Your task to perform on an android device: Go to sound settings Image 0: 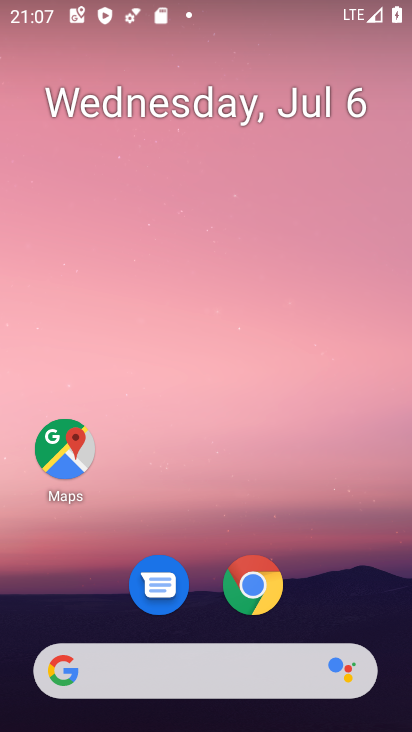
Step 0: drag from (220, 490) to (224, 14)
Your task to perform on an android device: Go to sound settings Image 1: 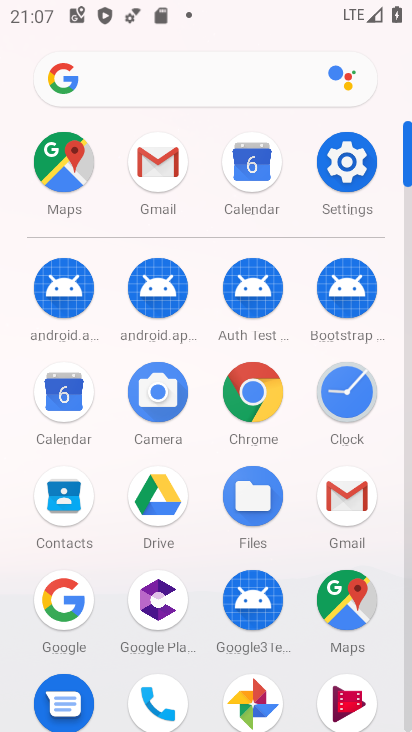
Step 1: click (348, 166)
Your task to perform on an android device: Go to sound settings Image 2: 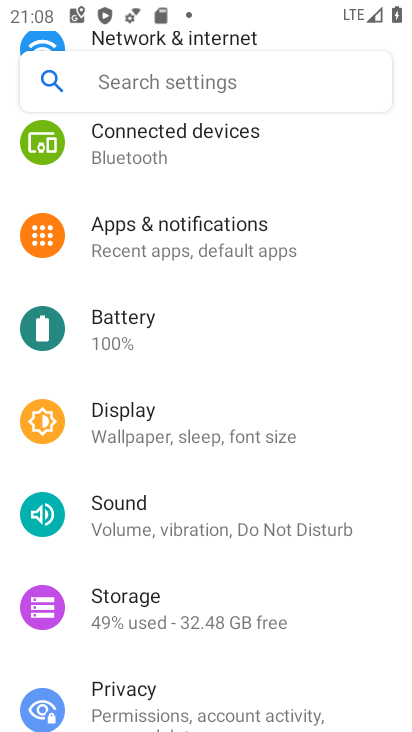
Step 2: click (213, 526)
Your task to perform on an android device: Go to sound settings Image 3: 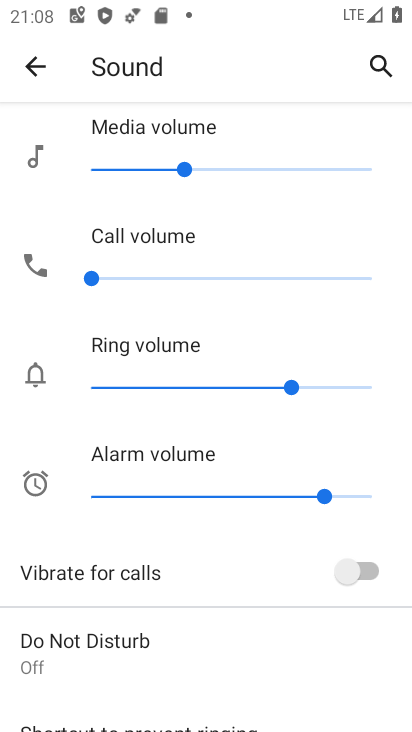
Step 3: task complete